Your task to perform on an android device: turn off javascript in the chrome app Image 0: 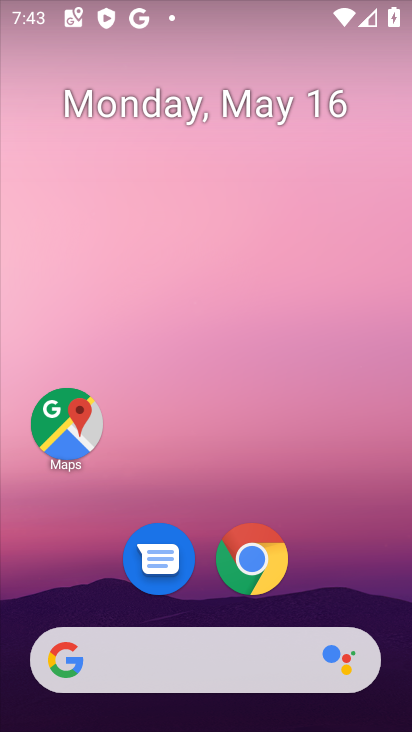
Step 0: drag from (383, 580) to (312, 182)
Your task to perform on an android device: turn off javascript in the chrome app Image 1: 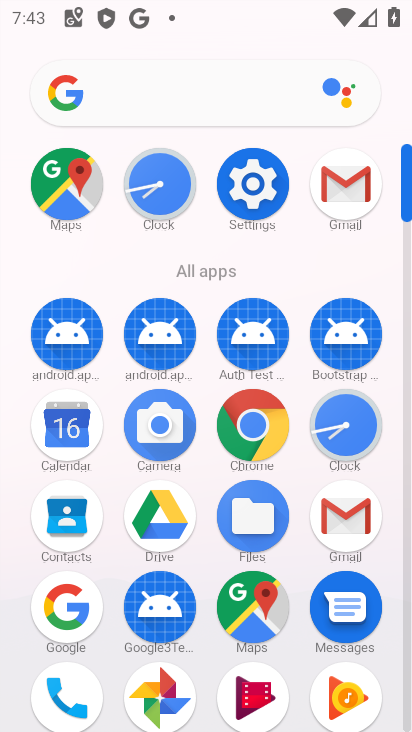
Step 1: click (252, 446)
Your task to perform on an android device: turn off javascript in the chrome app Image 2: 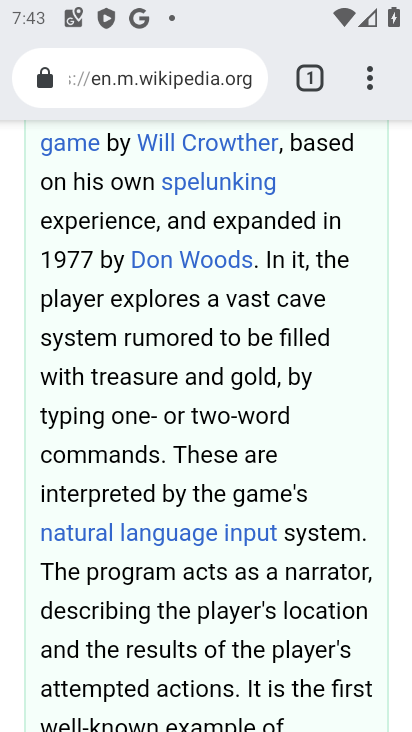
Step 2: click (376, 87)
Your task to perform on an android device: turn off javascript in the chrome app Image 3: 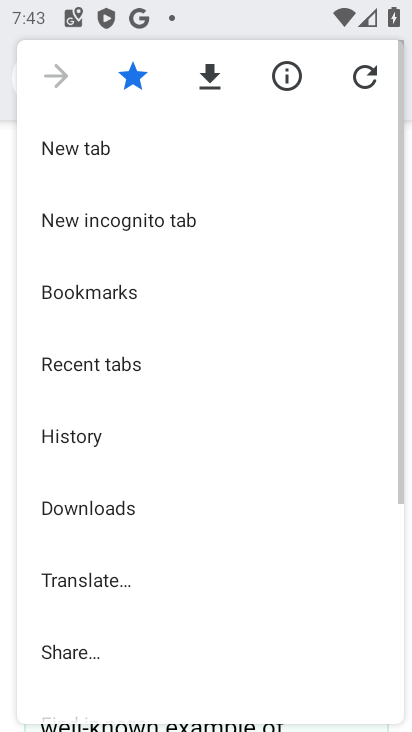
Step 3: drag from (204, 684) to (258, 299)
Your task to perform on an android device: turn off javascript in the chrome app Image 4: 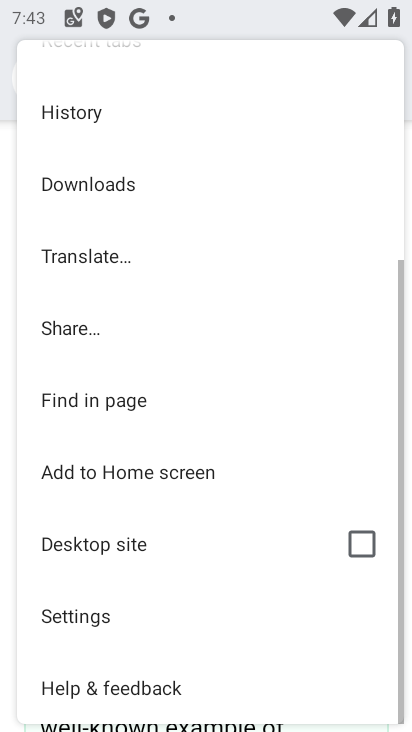
Step 4: click (160, 622)
Your task to perform on an android device: turn off javascript in the chrome app Image 5: 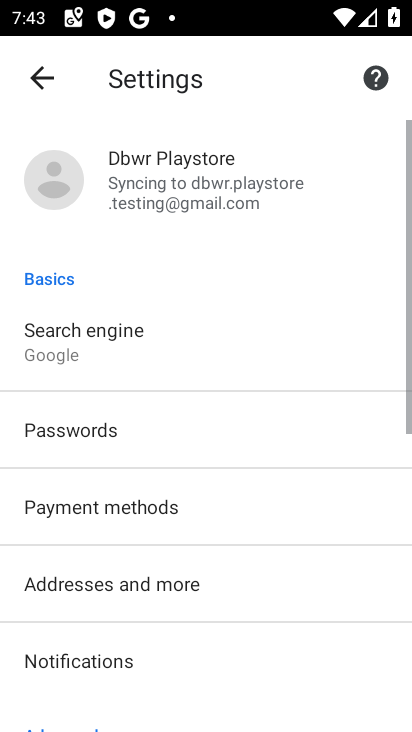
Step 5: drag from (220, 631) to (270, 315)
Your task to perform on an android device: turn off javascript in the chrome app Image 6: 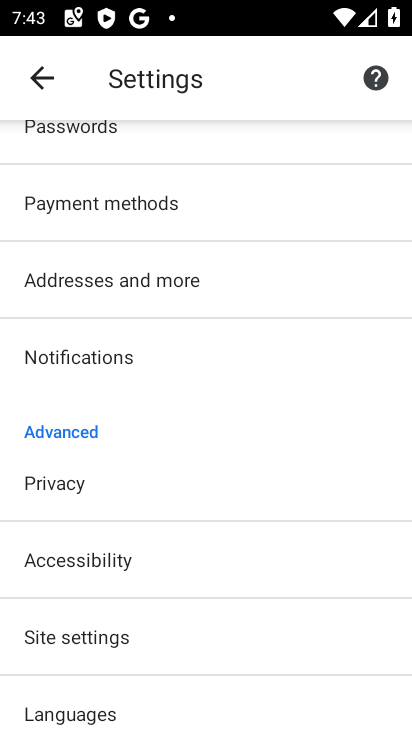
Step 6: click (163, 642)
Your task to perform on an android device: turn off javascript in the chrome app Image 7: 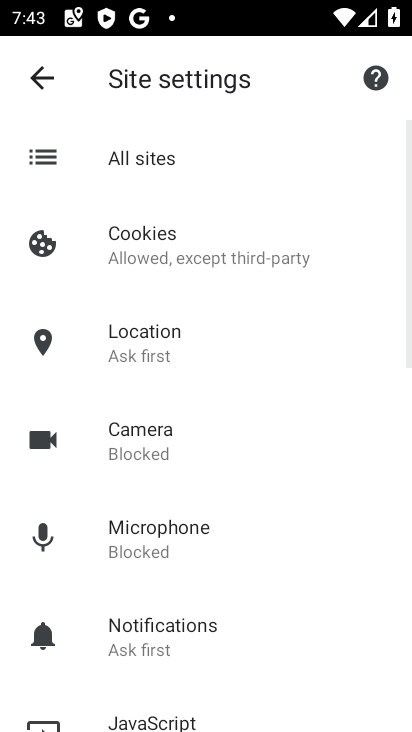
Step 7: drag from (223, 583) to (281, 287)
Your task to perform on an android device: turn off javascript in the chrome app Image 8: 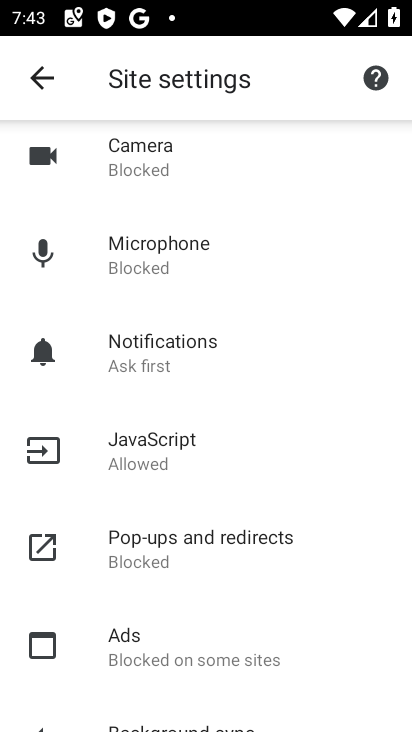
Step 8: click (242, 439)
Your task to perform on an android device: turn off javascript in the chrome app Image 9: 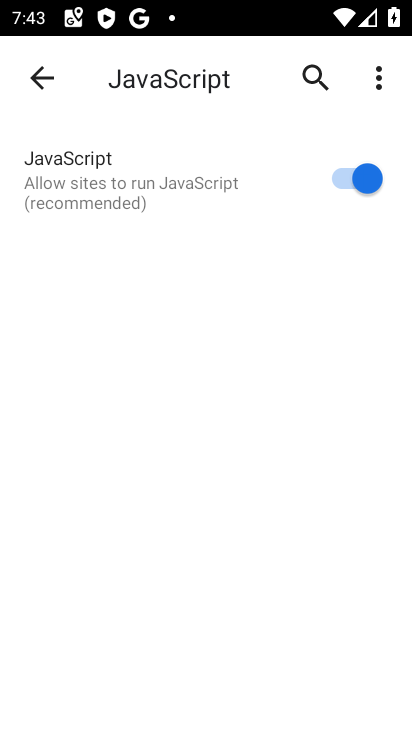
Step 9: click (339, 182)
Your task to perform on an android device: turn off javascript in the chrome app Image 10: 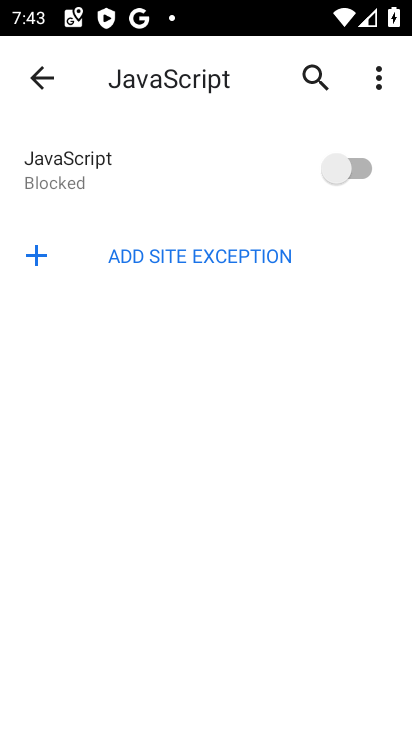
Step 10: task complete